Your task to perform on an android device: turn off priority inbox in the gmail app Image 0: 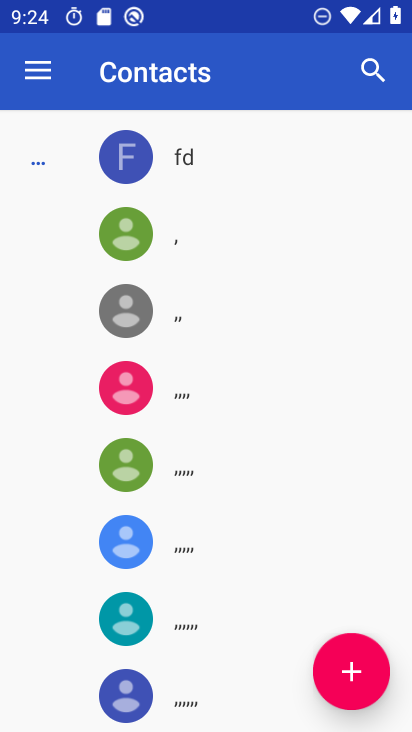
Step 0: press home button
Your task to perform on an android device: turn off priority inbox in the gmail app Image 1: 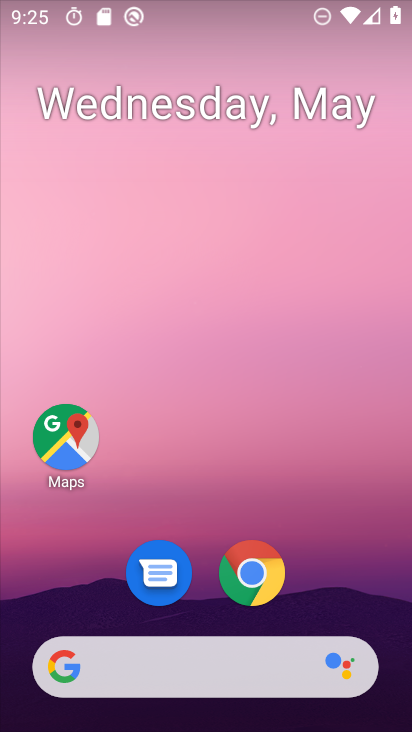
Step 1: drag from (392, 644) to (376, 298)
Your task to perform on an android device: turn off priority inbox in the gmail app Image 2: 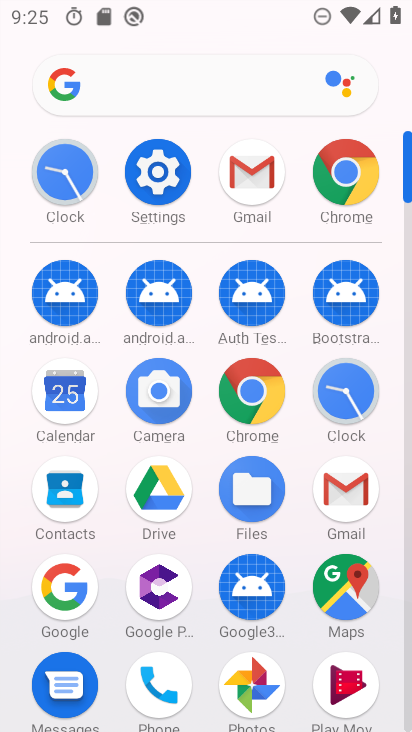
Step 2: click (349, 493)
Your task to perform on an android device: turn off priority inbox in the gmail app Image 3: 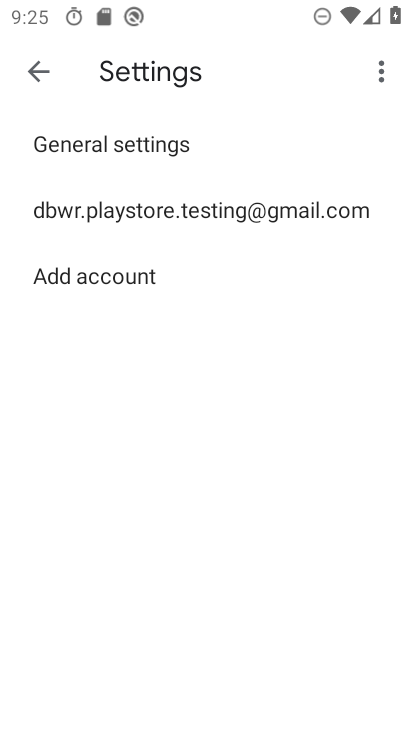
Step 3: click (75, 213)
Your task to perform on an android device: turn off priority inbox in the gmail app Image 4: 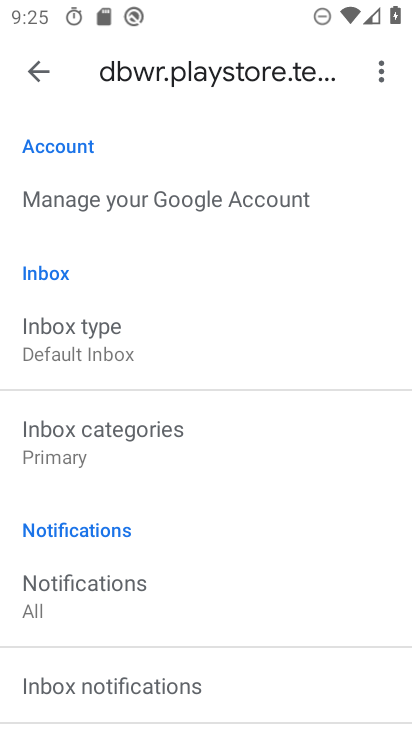
Step 4: drag from (276, 699) to (288, 284)
Your task to perform on an android device: turn off priority inbox in the gmail app Image 5: 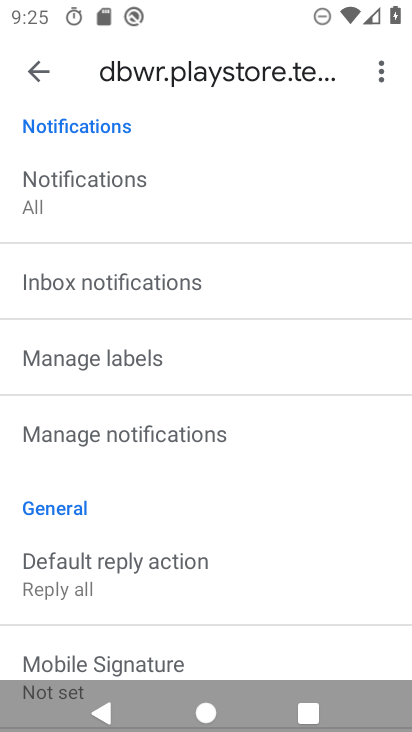
Step 5: drag from (277, 216) to (253, 491)
Your task to perform on an android device: turn off priority inbox in the gmail app Image 6: 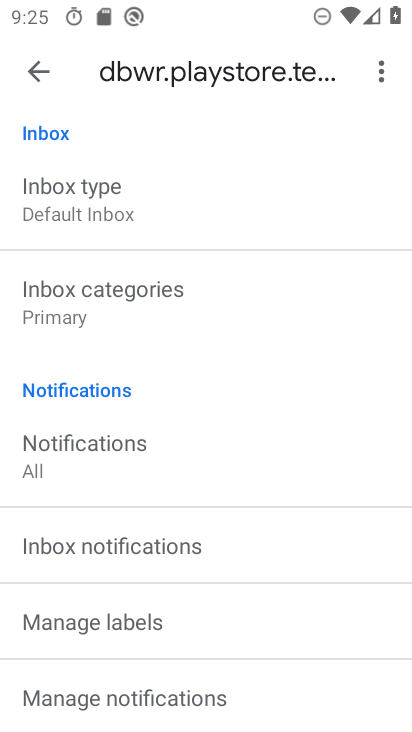
Step 6: click (66, 200)
Your task to perform on an android device: turn off priority inbox in the gmail app Image 7: 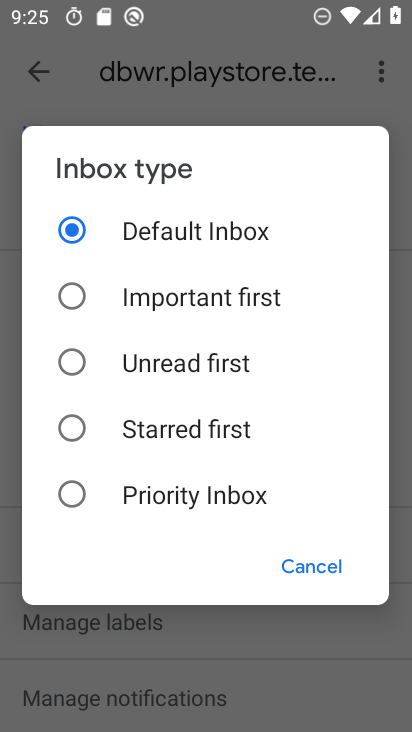
Step 7: task complete